Your task to perform on an android device: Go to sound settings Image 0: 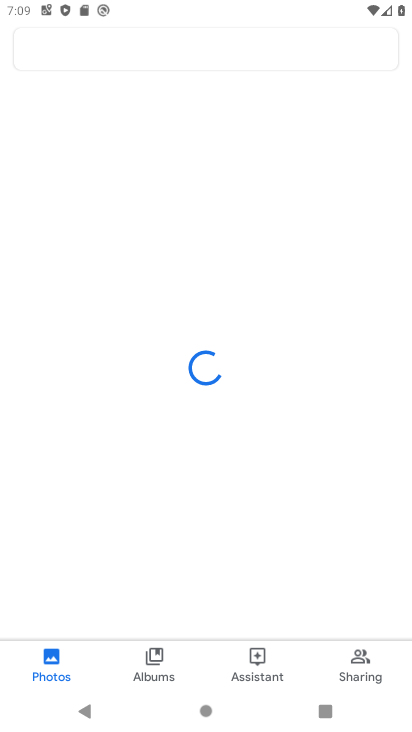
Step 0: press home button
Your task to perform on an android device: Go to sound settings Image 1: 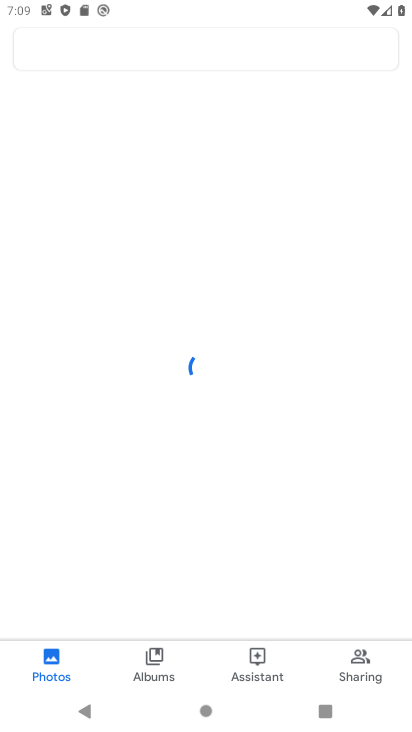
Step 1: drag from (368, 596) to (292, 28)
Your task to perform on an android device: Go to sound settings Image 2: 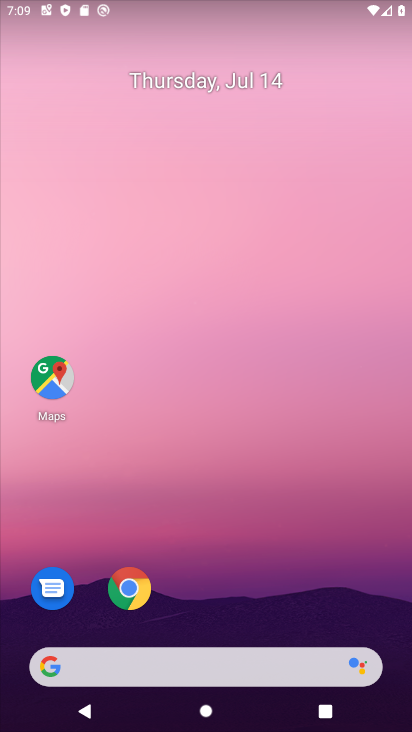
Step 2: drag from (374, 568) to (219, 8)
Your task to perform on an android device: Go to sound settings Image 3: 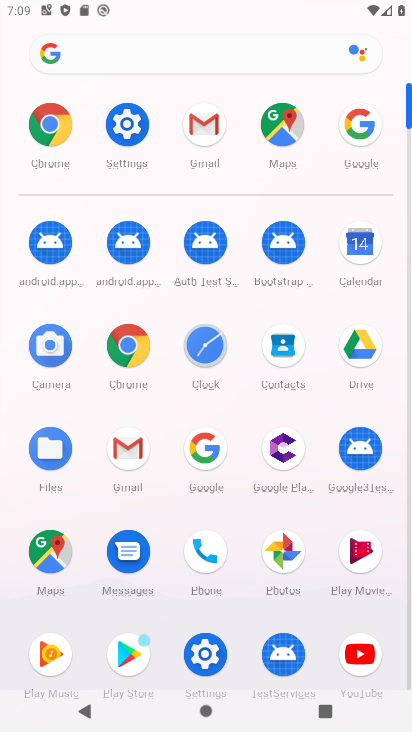
Step 3: click (210, 655)
Your task to perform on an android device: Go to sound settings Image 4: 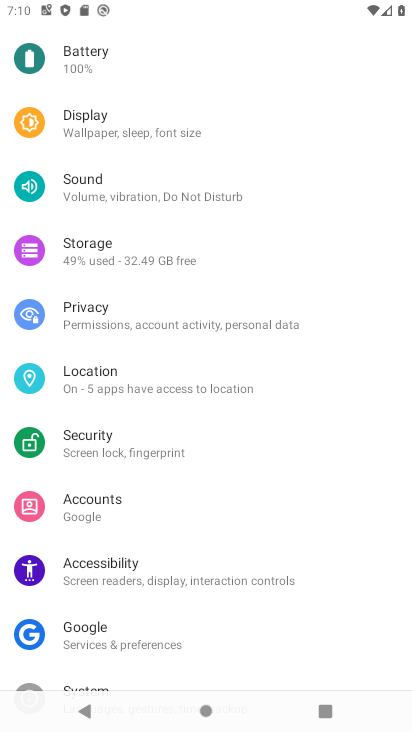
Step 4: click (100, 190)
Your task to perform on an android device: Go to sound settings Image 5: 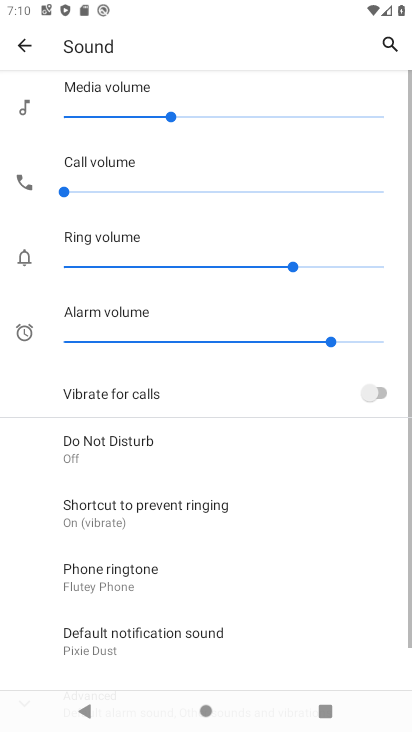
Step 5: task complete